Your task to perform on an android device: Do I have any events this weekend? Image 0: 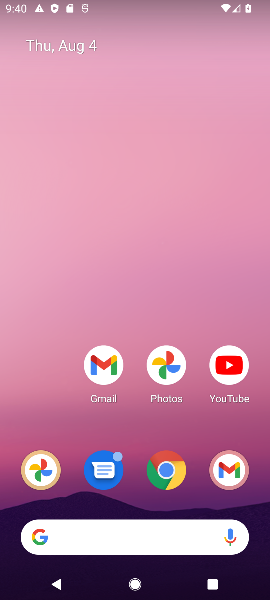
Step 0: drag from (130, 417) to (188, 25)
Your task to perform on an android device: Do I have any events this weekend? Image 1: 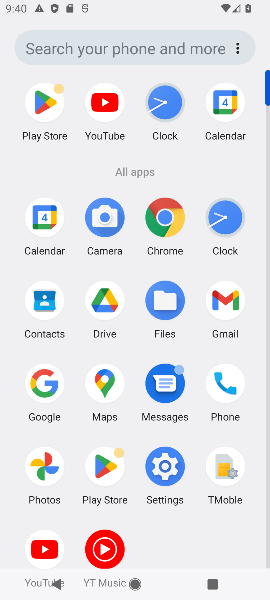
Step 1: click (40, 223)
Your task to perform on an android device: Do I have any events this weekend? Image 2: 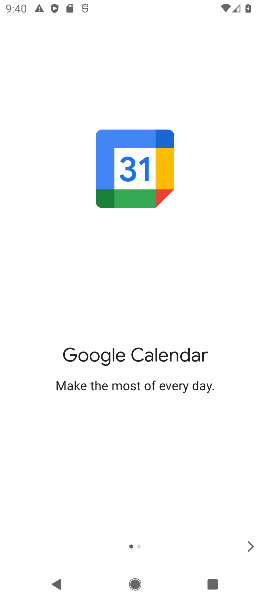
Step 2: click (250, 548)
Your task to perform on an android device: Do I have any events this weekend? Image 3: 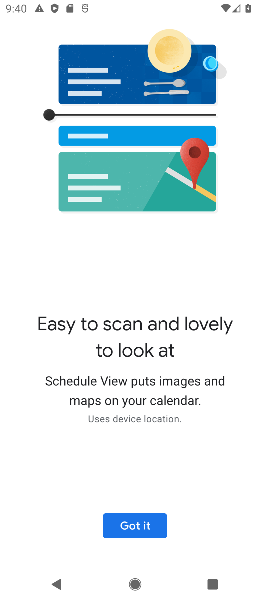
Step 3: click (122, 524)
Your task to perform on an android device: Do I have any events this weekend? Image 4: 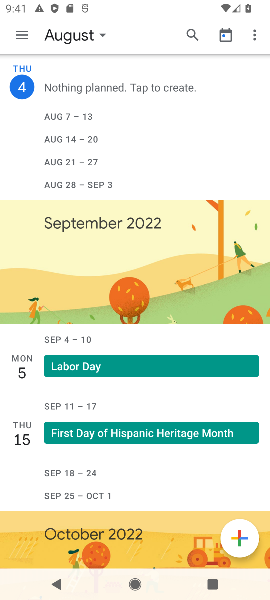
Step 4: click (64, 29)
Your task to perform on an android device: Do I have any events this weekend? Image 5: 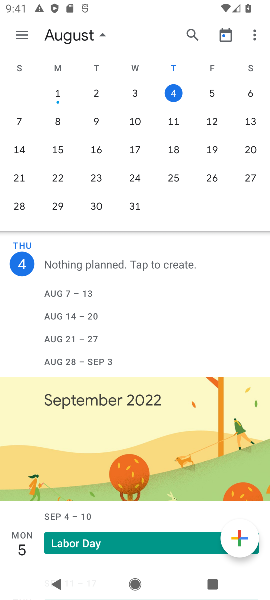
Step 5: click (247, 97)
Your task to perform on an android device: Do I have any events this weekend? Image 6: 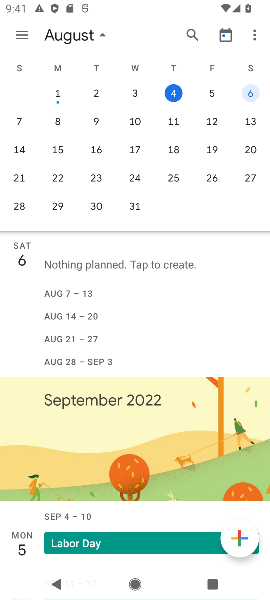
Step 6: task complete